Your task to perform on an android device: Go to internet settings Image 0: 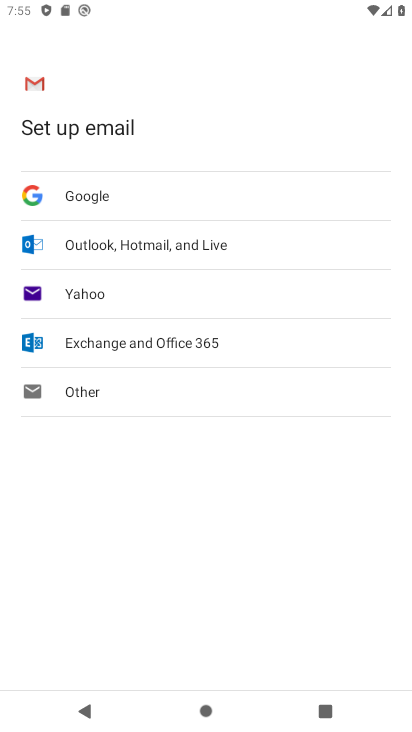
Step 0: press home button
Your task to perform on an android device: Go to internet settings Image 1: 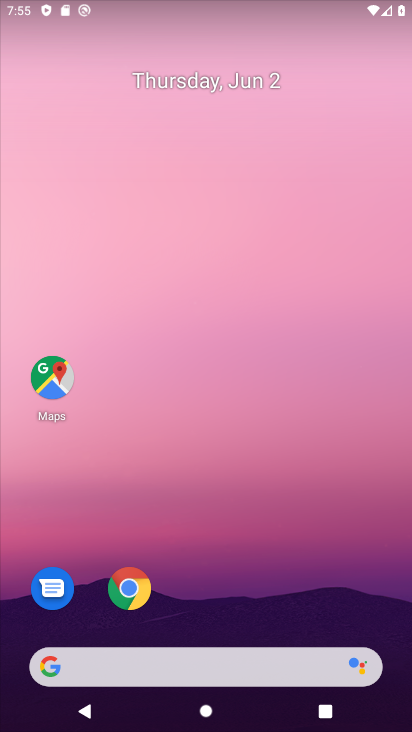
Step 1: drag from (229, 721) to (157, 89)
Your task to perform on an android device: Go to internet settings Image 2: 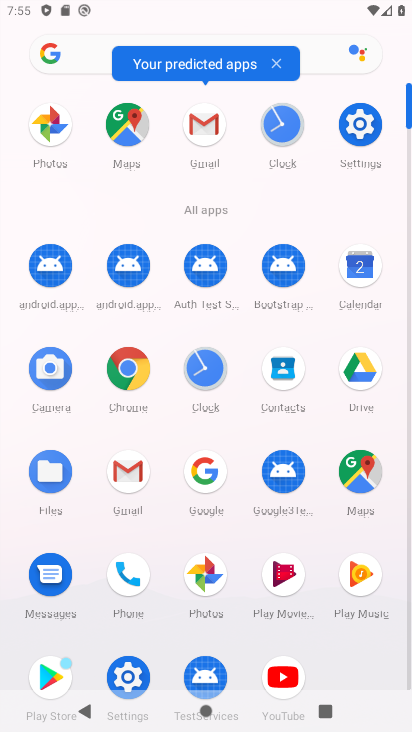
Step 2: click (358, 126)
Your task to perform on an android device: Go to internet settings Image 3: 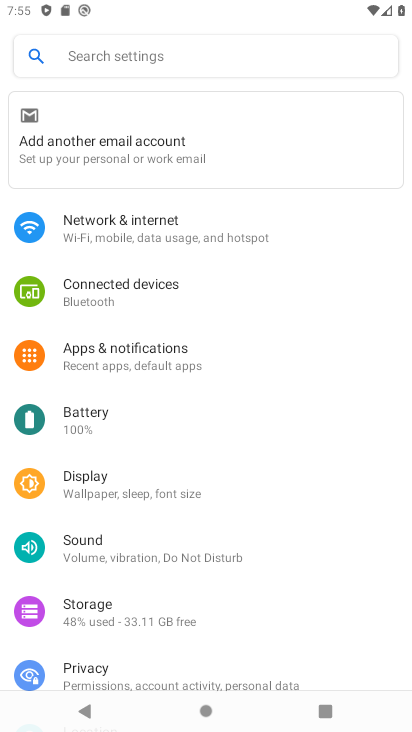
Step 3: click (111, 231)
Your task to perform on an android device: Go to internet settings Image 4: 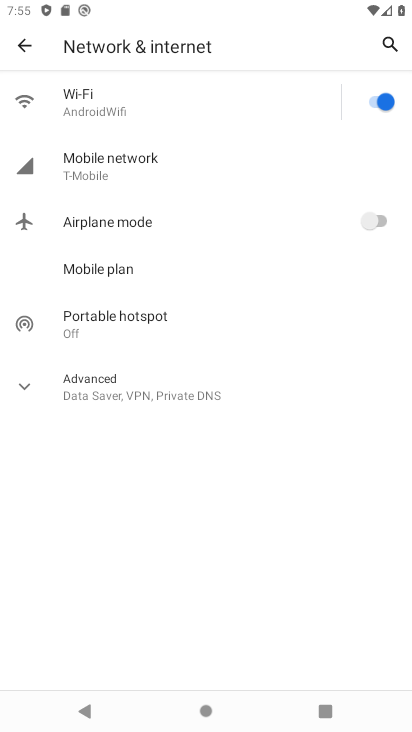
Step 4: task complete